Your task to perform on an android device: Search for razer blade on ebay.com, select the first entry, and add it to the cart. Image 0: 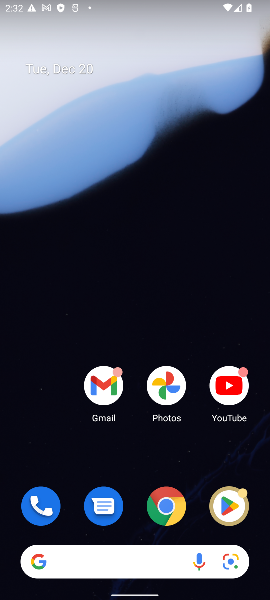
Step 0: click (168, 498)
Your task to perform on an android device: Search for razer blade on ebay.com, select the first entry, and add it to the cart. Image 1: 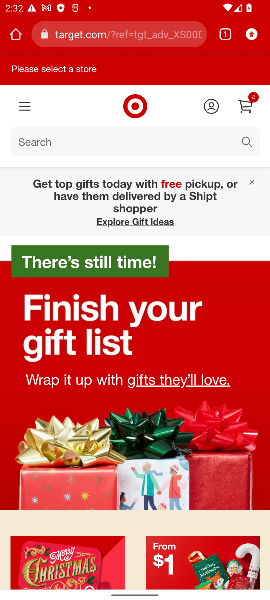
Step 1: click (138, 30)
Your task to perform on an android device: Search for razer blade on ebay.com, select the first entry, and add it to the cart. Image 2: 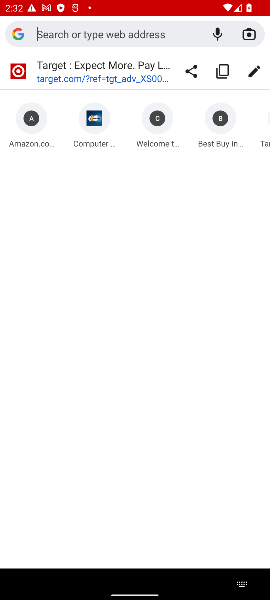
Step 2: type "ebay"
Your task to perform on an android device: Search for razer blade on ebay.com, select the first entry, and add it to the cart. Image 3: 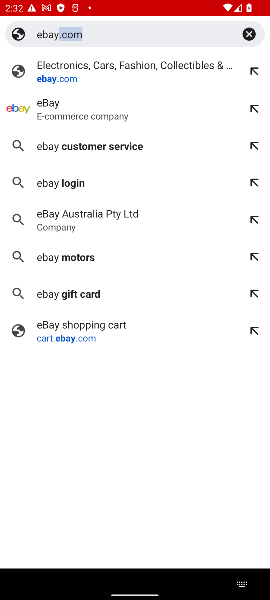
Step 3: click (80, 77)
Your task to perform on an android device: Search for razer blade on ebay.com, select the first entry, and add it to the cart. Image 4: 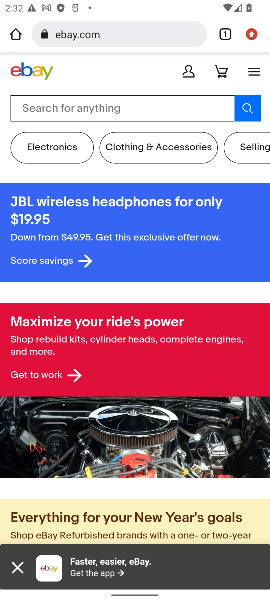
Step 4: click (106, 107)
Your task to perform on an android device: Search for razer blade on ebay.com, select the first entry, and add it to the cart. Image 5: 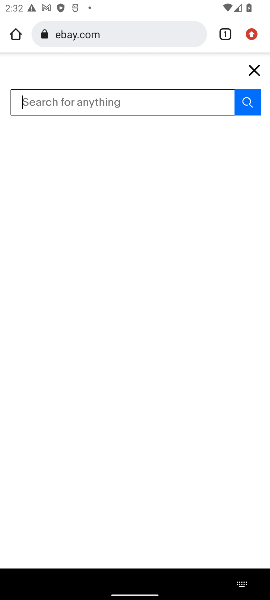
Step 5: type "razer blade"
Your task to perform on an android device: Search for razer blade on ebay.com, select the first entry, and add it to the cart. Image 6: 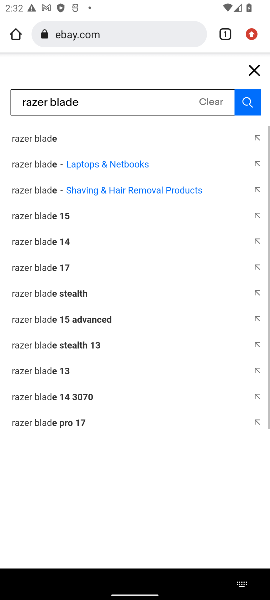
Step 6: click (52, 138)
Your task to perform on an android device: Search for razer blade on ebay.com, select the first entry, and add it to the cart. Image 7: 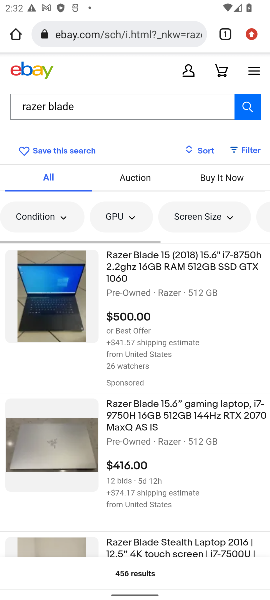
Step 7: click (167, 266)
Your task to perform on an android device: Search for razer blade on ebay.com, select the first entry, and add it to the cart. Image 8: 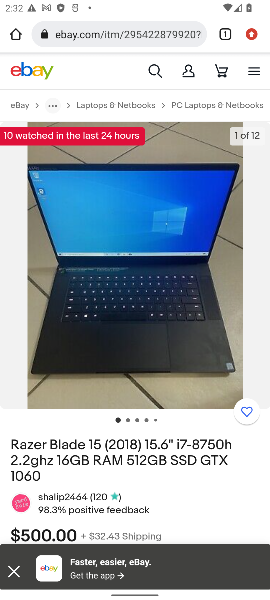
Step 8: drag from (172, 517) to (144, 199)
Your task to perform on an android device: Search for razer blade on ebay.com, select the first entry, and add it to the cart. Image 9: 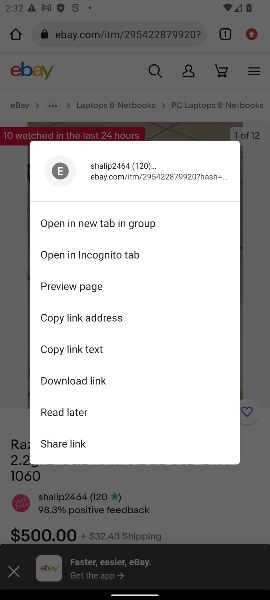
Step 9: click (143, 484)
Your task to perform on an android device: Search for razer blade on ebay.com, select the first entry, and add it to the cart. Image 10: 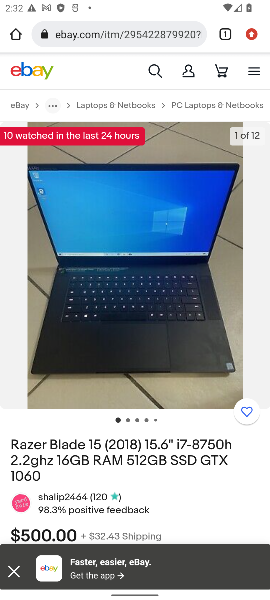
Step 10: drag from (140, 503) to (121, 147)
Your task to perform on an android device: Search for razer blade on ebay.com, select the first entry, and add it to the cart. Image 11: 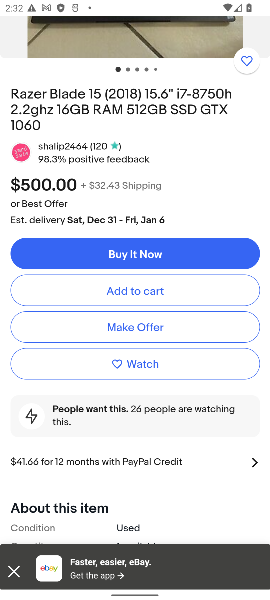
Step 11: click (144, 291)
Your task to perform on an android device: Search for razer blade on ebay.com, select the first entry, and add it to the cart. Image 12: 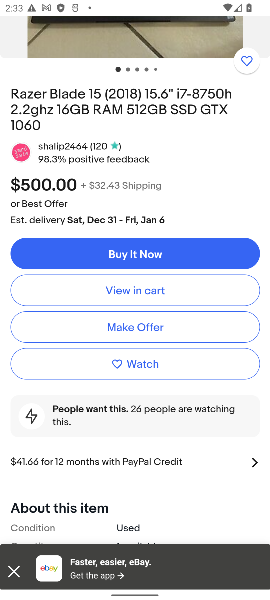
Step 12: click (144, 291)
Your task to perform on an android device: Search for razer blade on ebay.com, select the first entry, and add it to the cart. Image 13: 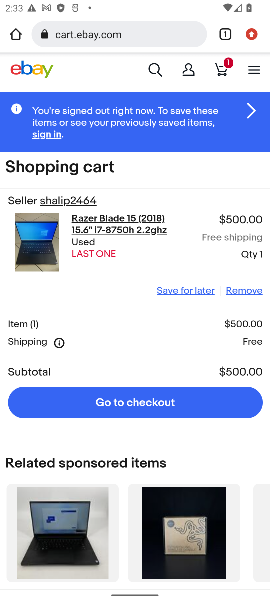
Step 13: click (162, 403)
Your task to perform on an android device: Search for razer blade on ebay.com, select the first entry, and add it to the cart. Image 14: 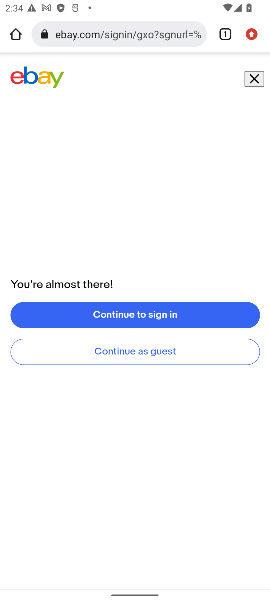
Step 14: click (252, 75)
Your task to perform on an android device: Search for razer blade on ebay.com, select the first entry, and add it to the cart. Image 15: 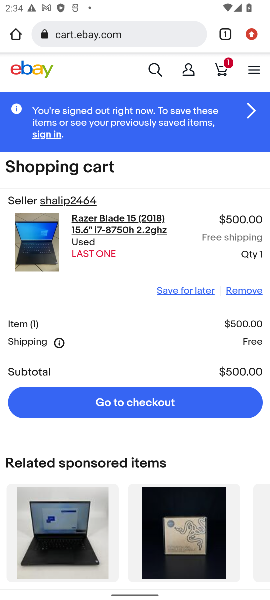
Step 15: task complete